Your task to perform on an android device: Go to internet settings Image 0: 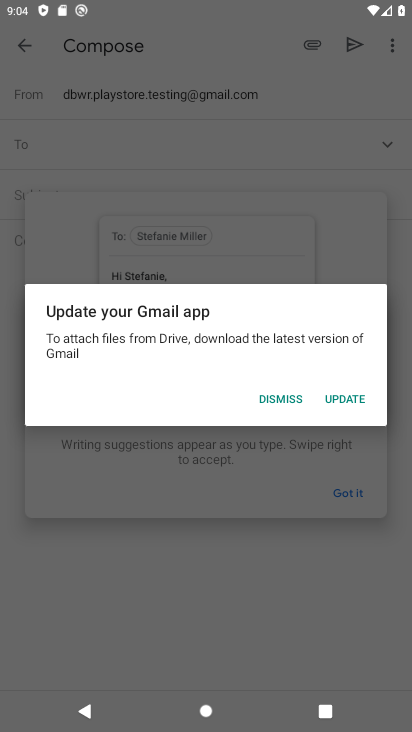
Step 0: press home button
Your task to perform on an android device: Go to internet settings Image 1: 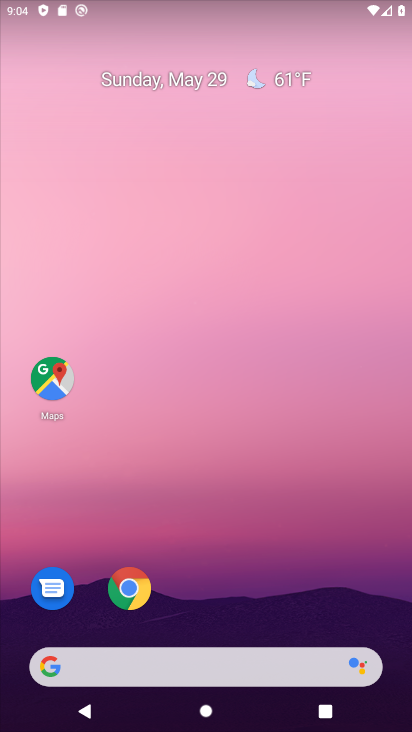
Step 1: drag from (353, 434) to (286, 8)
Your task to perform on an android device: Go to internet settings Image 2: 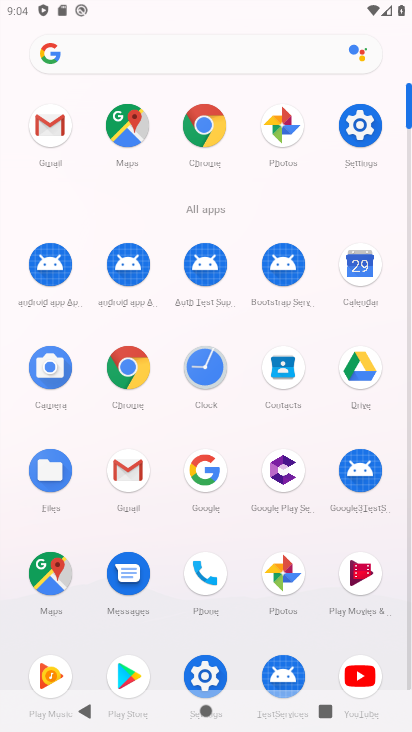
Step 2: click (363, 125)
Your task to perform on an android device: Go to internet settings Image 3: 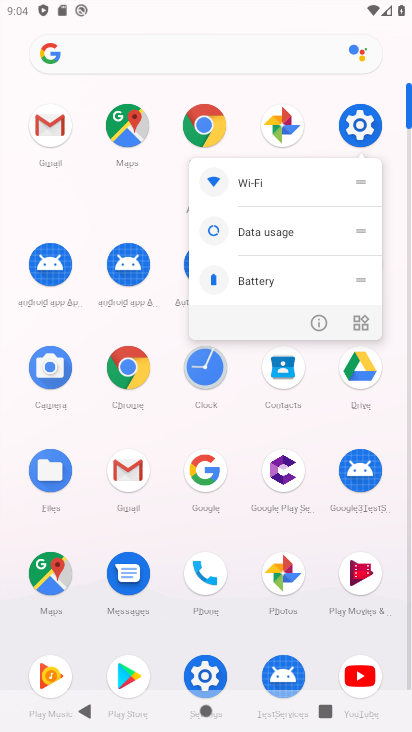
Step 3: click (361, 123)
Your task to perform on an android device: Go to internet settings Image 4: 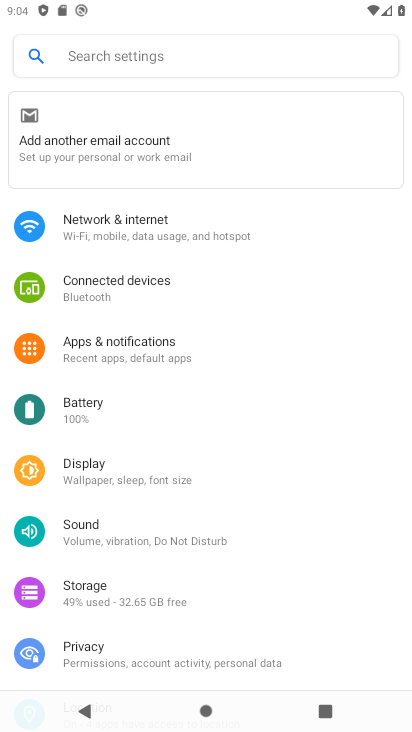
Step 4: click (131, 231)
Your task to perform on an android device: Go to internet settings Image 5: 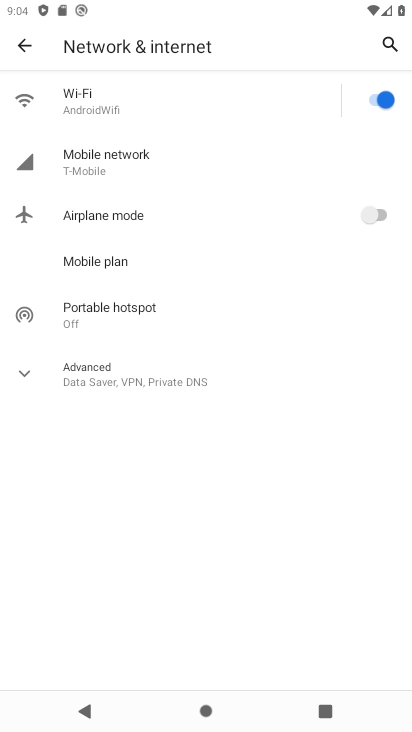
Step 5: click (194, 369)
Your task to perform on an android device: Go to internet settings Image 6: 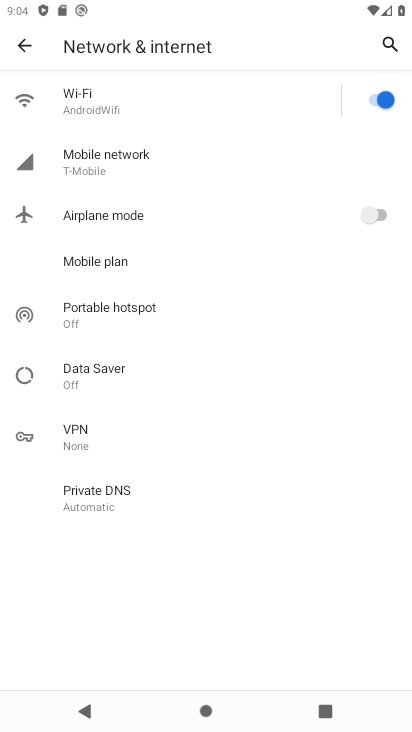
Step 6: task complete